Your task to perform on an android device: stop showing notifications on the lock screen Image 0: 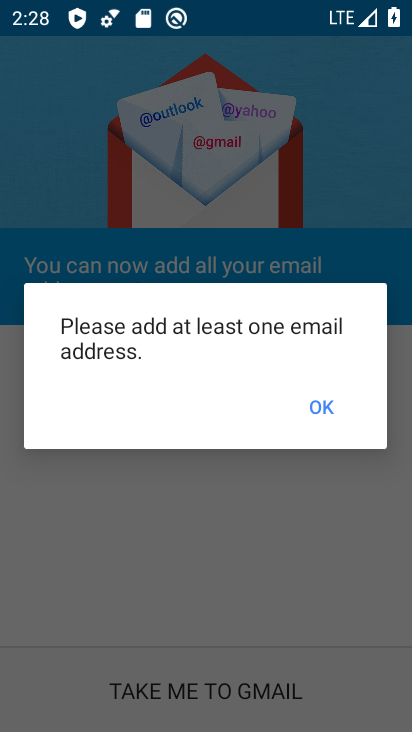
Step 0: press home button
Your task to perform on an android device: stop showing notifications on the lock screen Image 1: 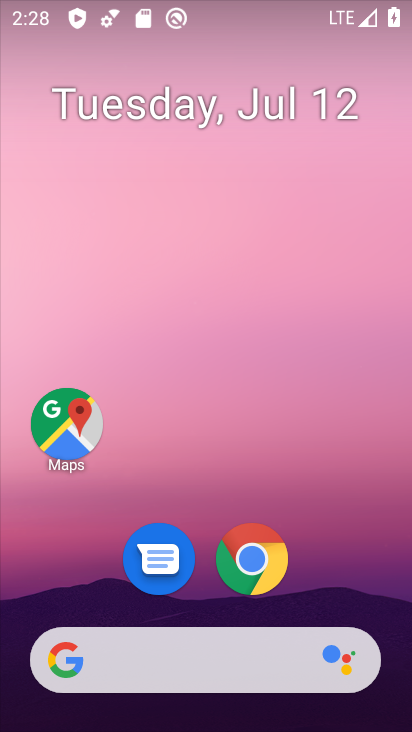
Step 1: drag from (353, 584) to (360, 194)
Your task to perform on an android device: stop showing notifications on the lock screen Image 2: 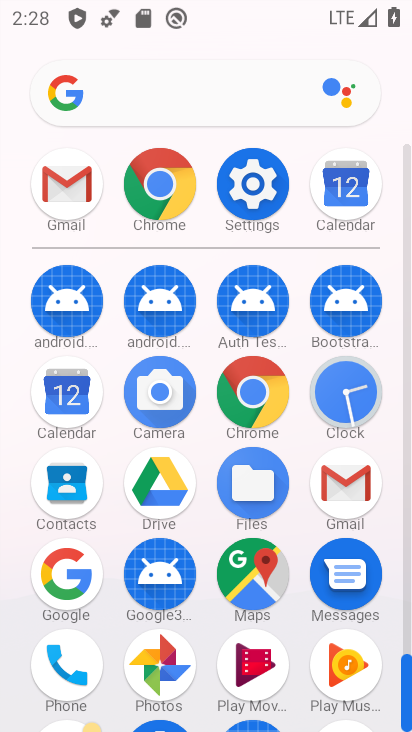
Step 2: click (263, 203)
Your task to perform on an android device: stop showing notifications on the lock screen Image 3: 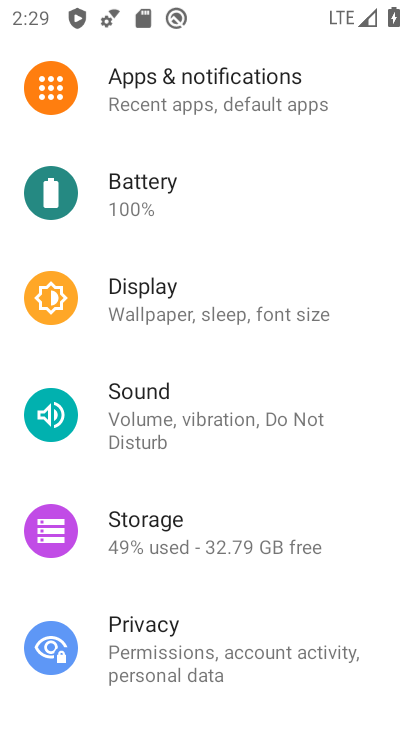
Step 3: drag from (353, 224) to (344, 357)
Your task to perform on an android device: stop showing notifications on the lock screen Image 4: 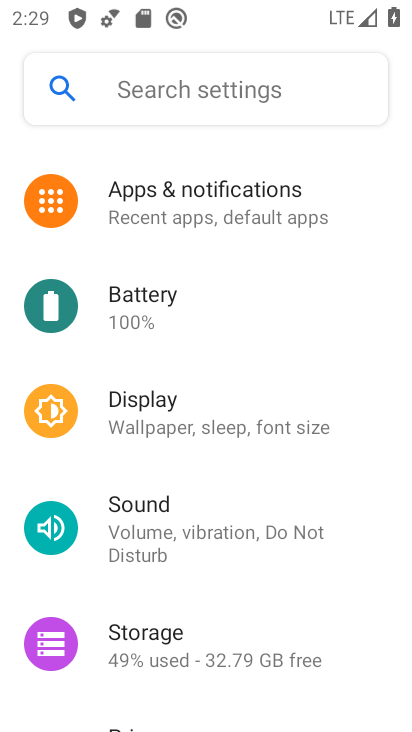
Step 4: drag from (341, 257) to (333, 381)
Your task to perform on an android device: stop showing notifications on the lock screen Image 5: 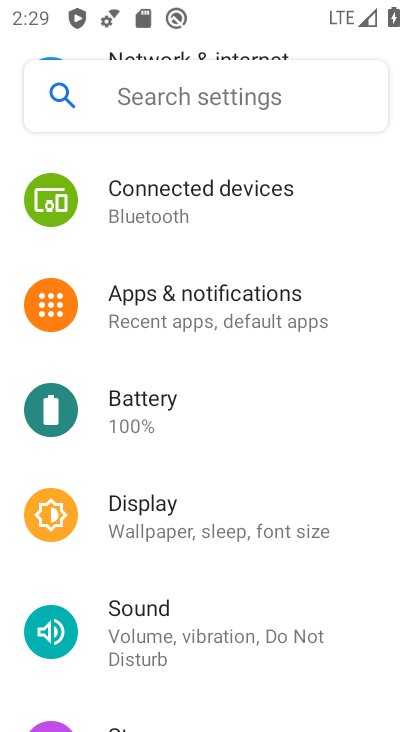
Step 5: drag from (350, 226) to (351, 351)
Your task to perform on an android device: stop showing notifications on the lock screen Image 6: 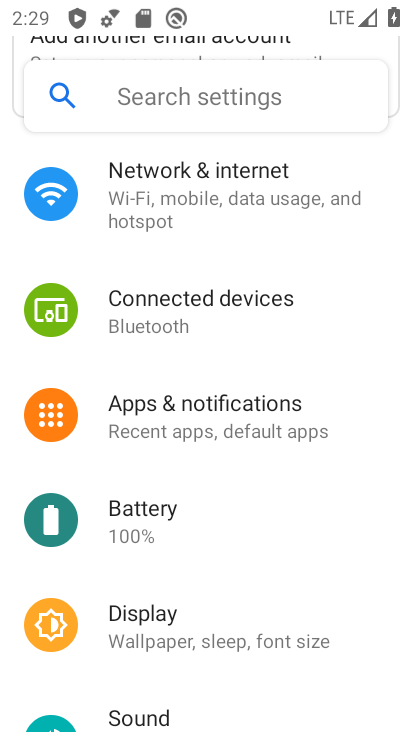
Step 6: drag from (357, 249) to (359, 371)
Your task to perform on an android device: stop showing notifications on the lock screen Image 7: 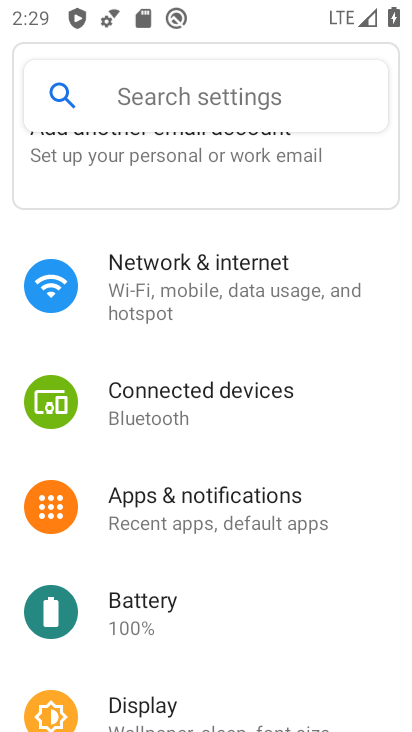
Step 7: drag from (362, 227) to (356, 394)
Your task to perform on an android device: stop showing notifications on the lock screen Image 8: 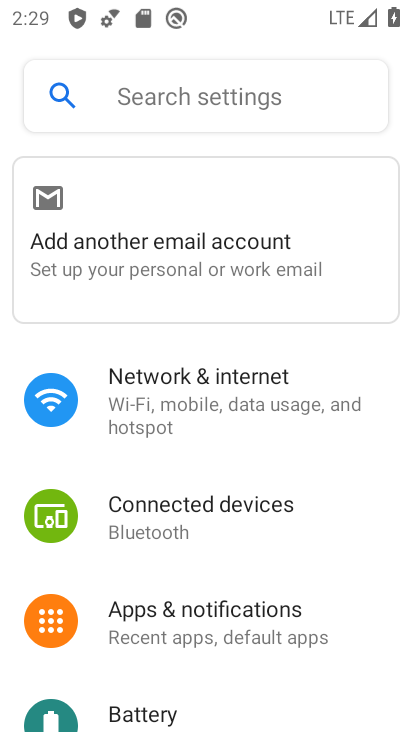
Step 8: drag from (348, 472) to (355, 397)
Your task to perform on an android device: stop showing notifications on the lock screen Image 9: 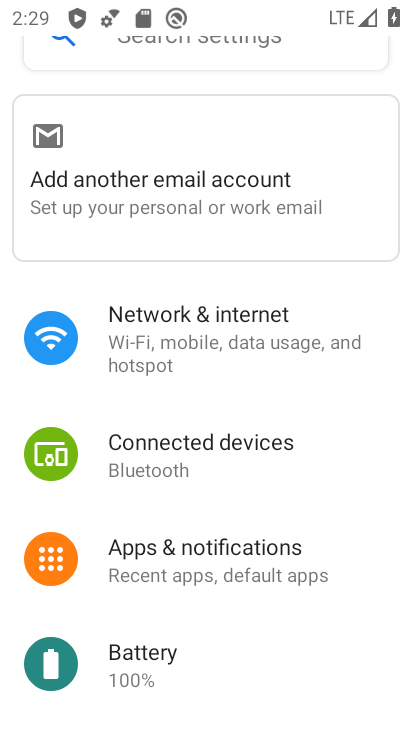
Step 9: drag from (345, 548) to (345, 378)
Your task to perform on an android device: stop showing notifications on the lock screen Image 10: 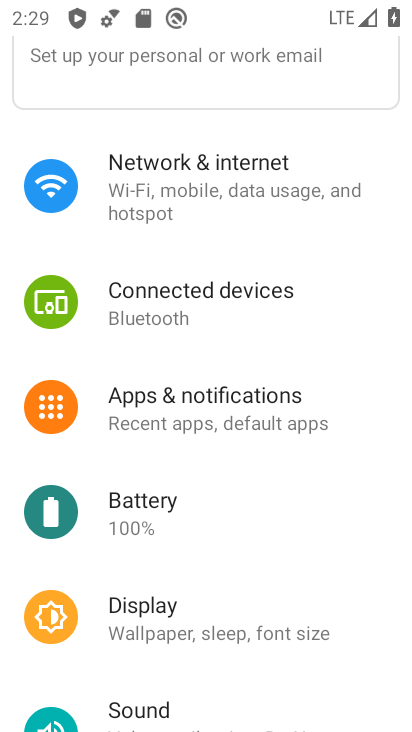
Step 10: drag from (357, 498) to (362, 380)
Your task to perform on an android device: stop showing notifications on the lock screen Image 11: 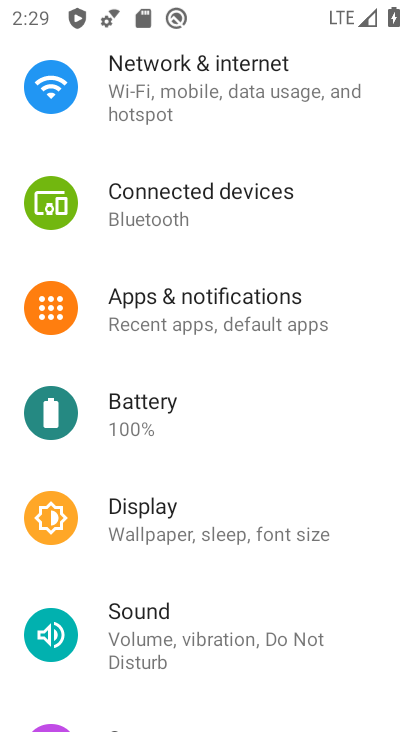
Step 11: click (306, 332)
Your task to perform on an android device: stop showing notifications on the lock screen Image 12: 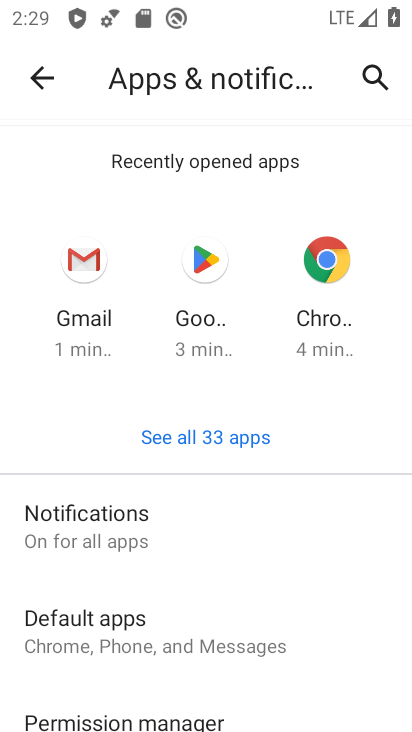
Step 12: click (232, 526)
Your task to perform on an android device: stop showing notifications on the lock screen Image 13: 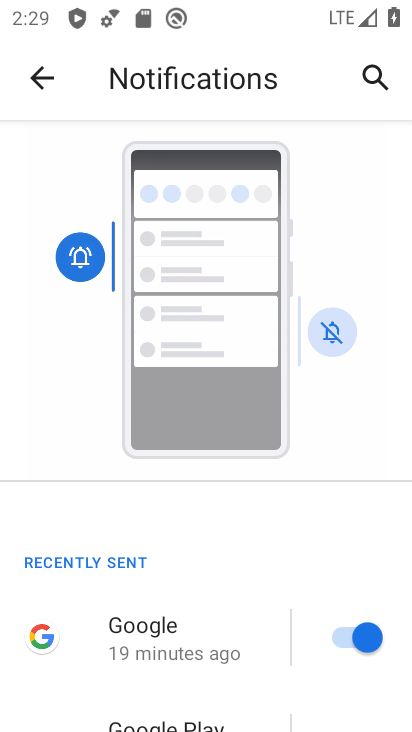
Step 13: drag from (240, 554) to (250, 387)
Your task to perform on an android device: stop showing notifications on the lock screen Image 14: 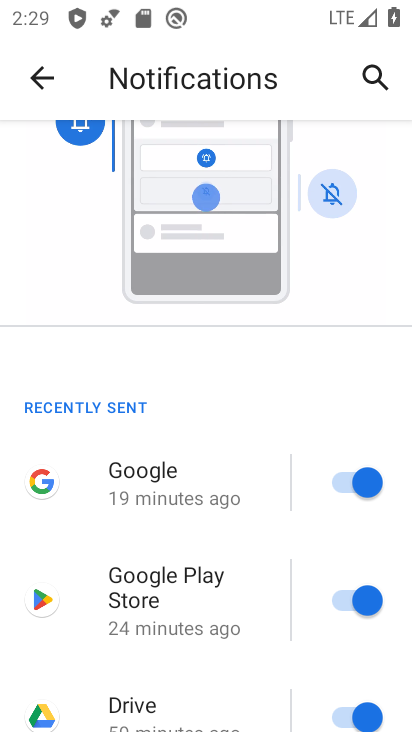
Step 14: drag from (267, 537) to (270, 341)
Your task to perform on an android device: stop showing notifications on the lock screen Image 15: 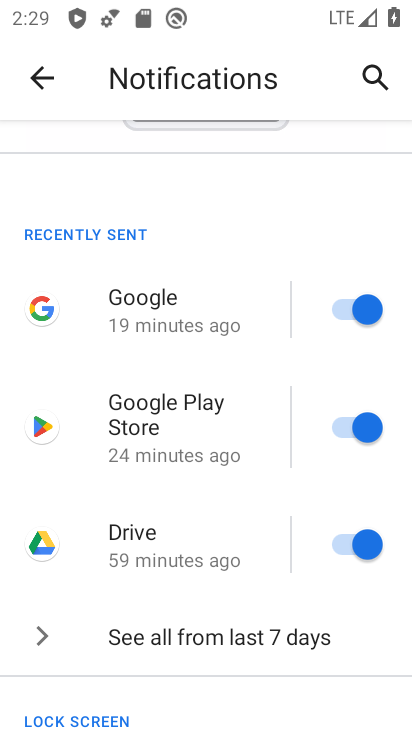
Step 15: drag from (261, 537) to (252, 358)
Your task to perform on an android device: stop showing notifications on the lock screen Image 16: 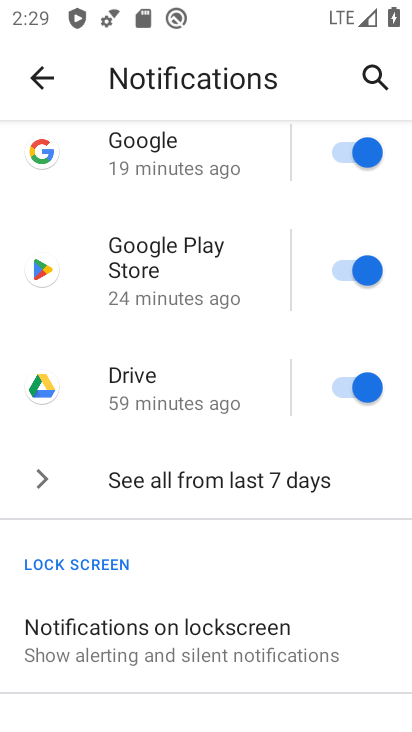
Step 16: drag from (266, 519) to (261, 359)
Your task to perform on an android device: stop showing notifications on the lock screen Image 17: 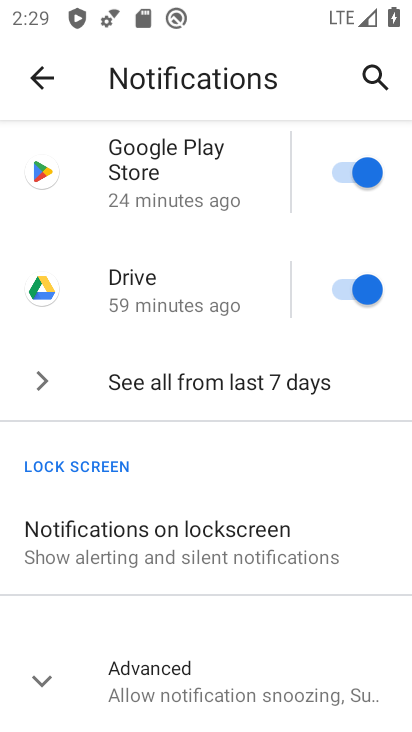
Step 17: click (189, 551)
Your task to perform on an android device: stop showing notifications on the lock screen Image 18: 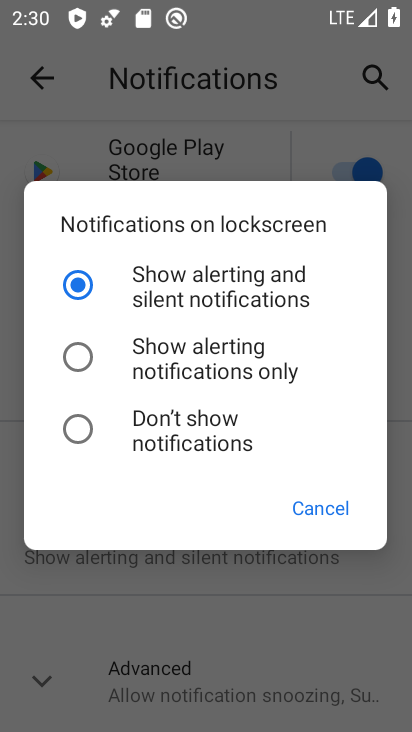
Step 18: click (83, 437)
Your task to perform on an android device: stop showing notifications on the lock screen Image 19: 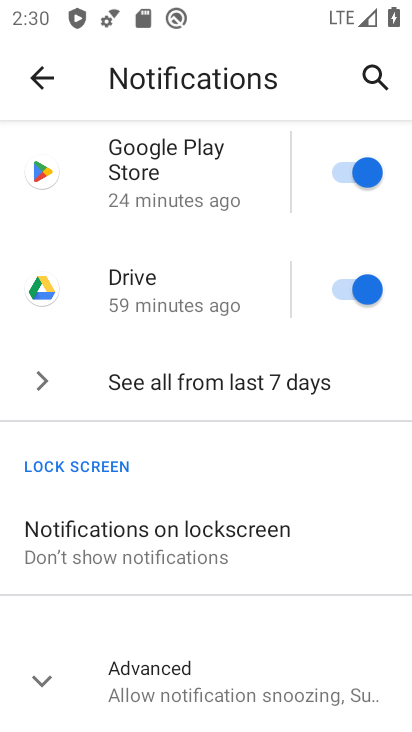
Step 19: task complete